Your task to perform on an android device: add a label to a message in the gmail app Image 0: 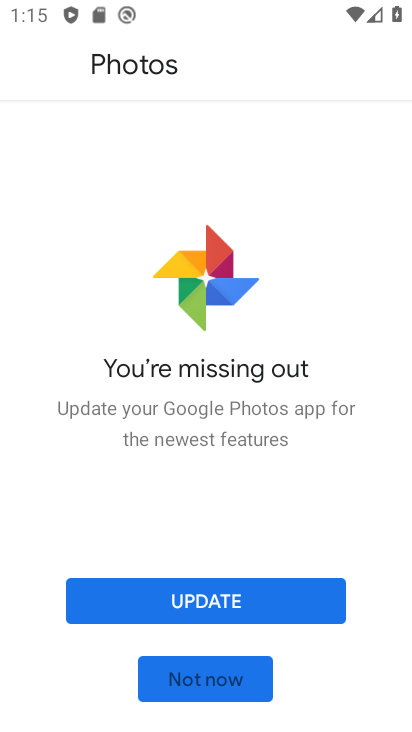
Step 0: click (209, 615)
Your task to perform on an android device: add a label to a message in the gmail app Image 1: 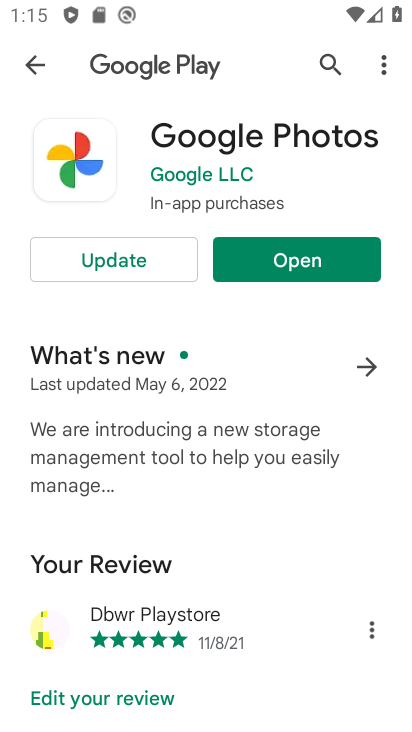
Step 1: click (86, 268)
Your task to perform on an android device: add a label to a message in the gmail app Image 2: 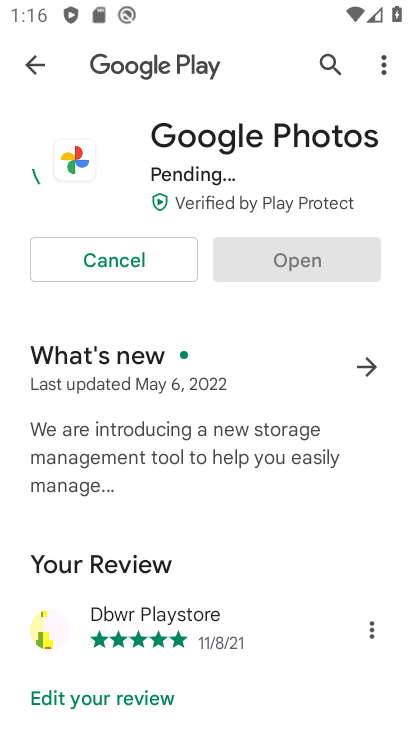
Step 2: press home button
Your task to perform on an android device: add a label to a message in the gmail app Image 3: 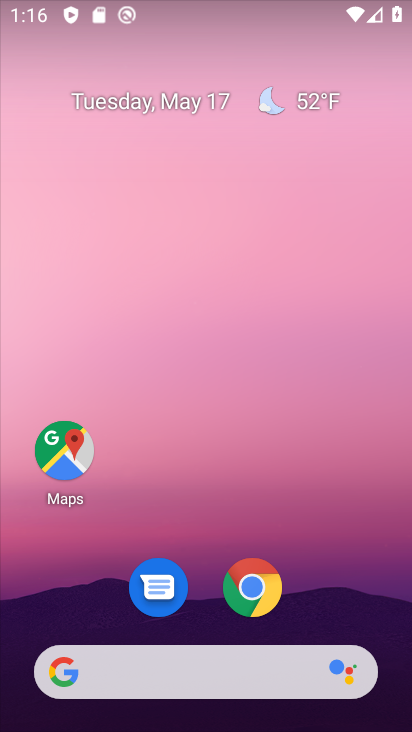
Step 3: drag from (357, 599) to (362, 274)
Your task to perform on an android device: add a label to a message in the gmail app Image 4: 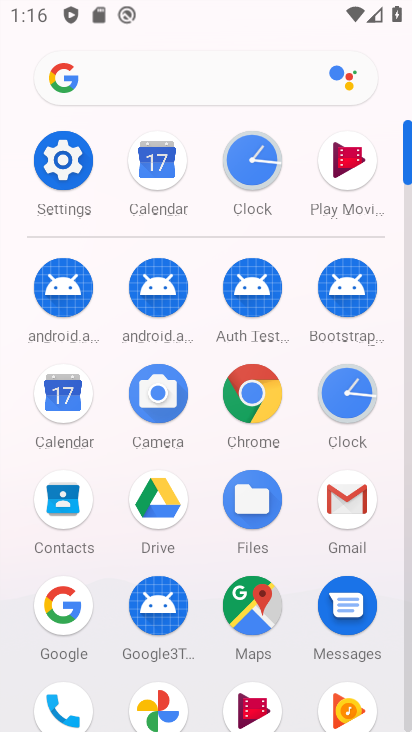
Step 4: click (362, 515)
Your task to perform on an android device: add a label to a message in the gmail app Image 5: 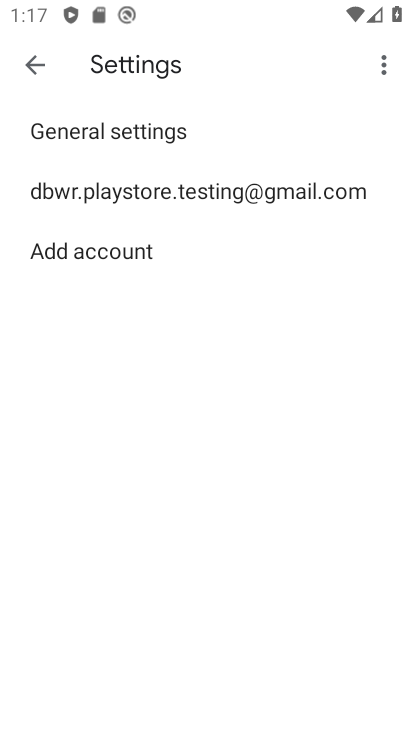
Step 5: click (24, 75)
Your task to perform on an android device: add a label to a message in the gmail app Image 6: 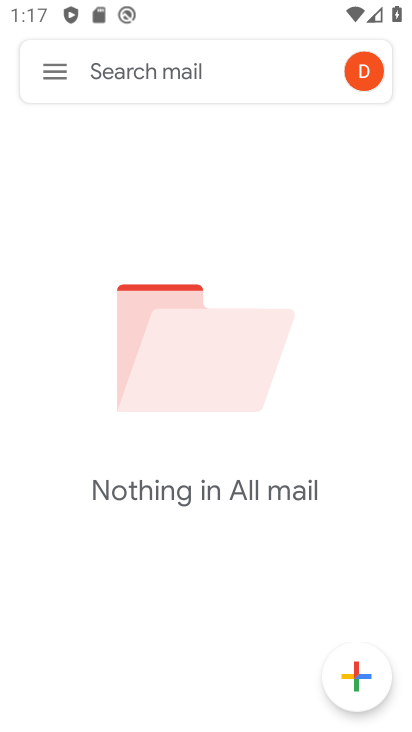
Step 6: click (35, 86)
Your task to perform on an android device: add a label to a message in the gmail app Image 7: 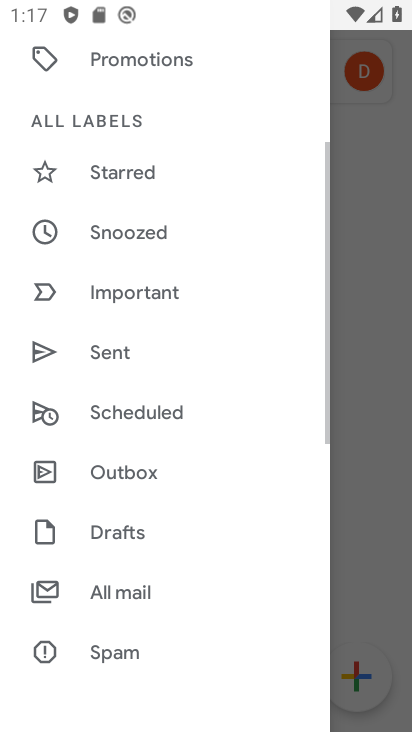
Step 7: click (73, 580)
Your task to perform on an android device: add a label to a message in the gmail app Image 8: 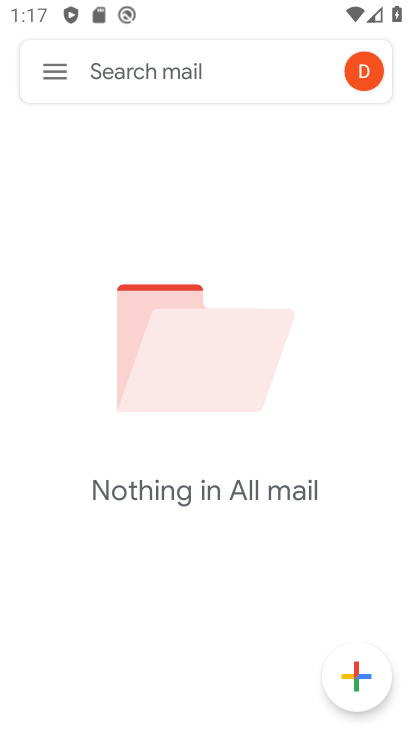
Step 8: task complete